Your task to perform on an android device: add a label to a message in the gmail app Image 0: 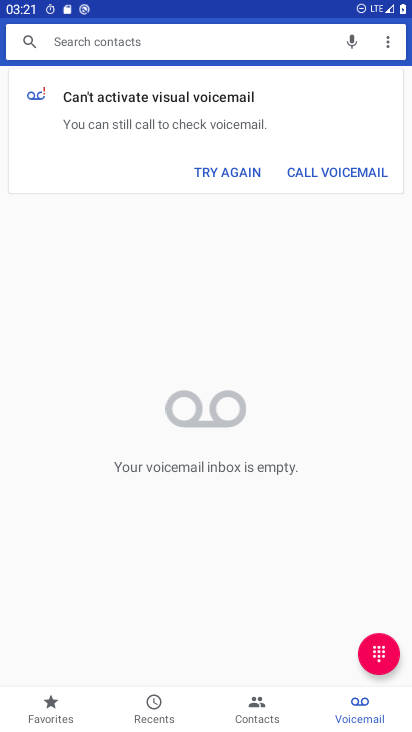
Step 0: press home button
Your task to perform on an android device: add a label to a message in the gmail app Image 1: 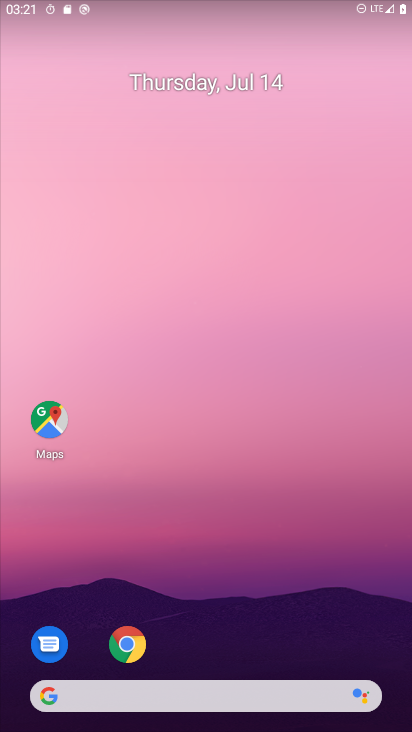
Step 1: drag from (265, 643) to (255, 112)
Your task to perform on an android device: add a label to a message in the gmail app Image 2: 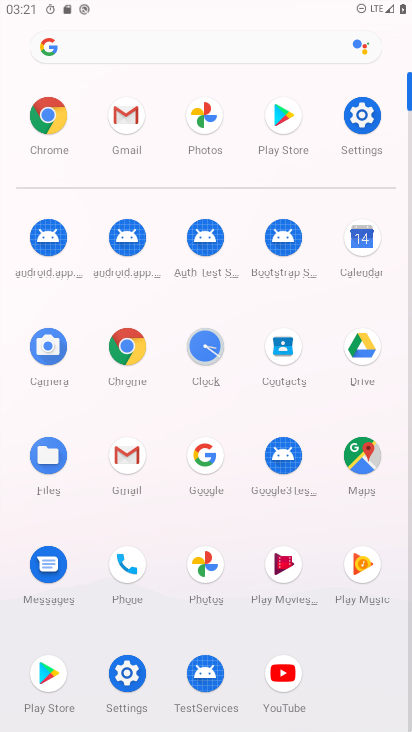
Step 2: click (133, 455)
Your task to perform on an android device: add a label to a message in the gmail app Image 3: 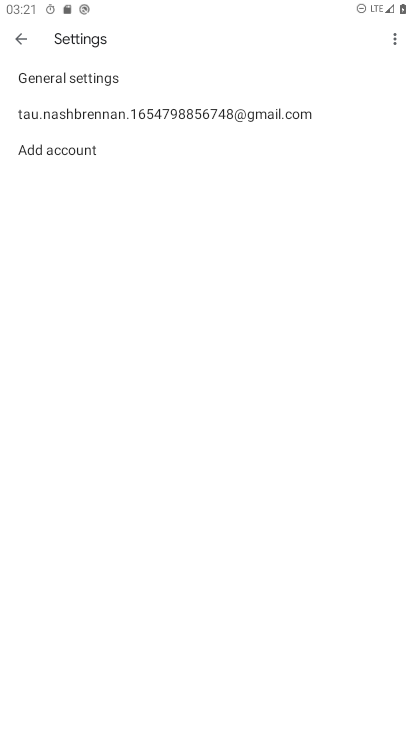
Step 3: click (19, 38)
Your task to perform on an android device: add a label to a message in the gmail app Image 4: 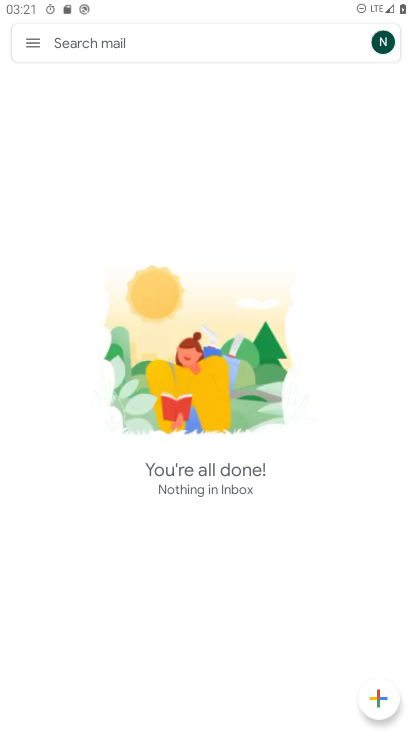
Step 4: click (26, 38)
Your task to perform on an android device: add a label to a message in the gmail app Image 5: 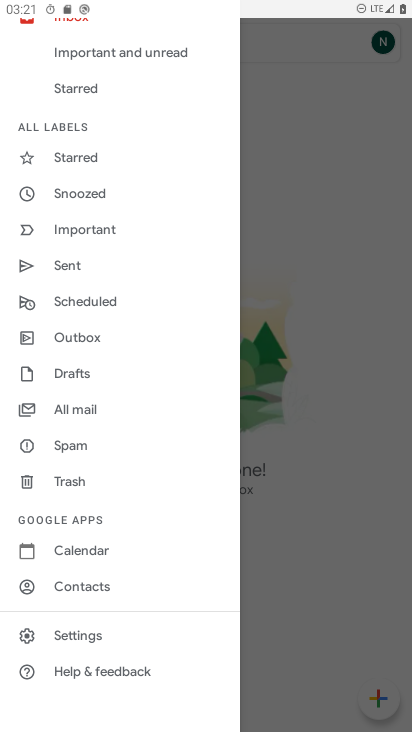
Step 5: click (82, 411)
Your task to perform on an android device: add a label to a message in the gmail app Image 6: 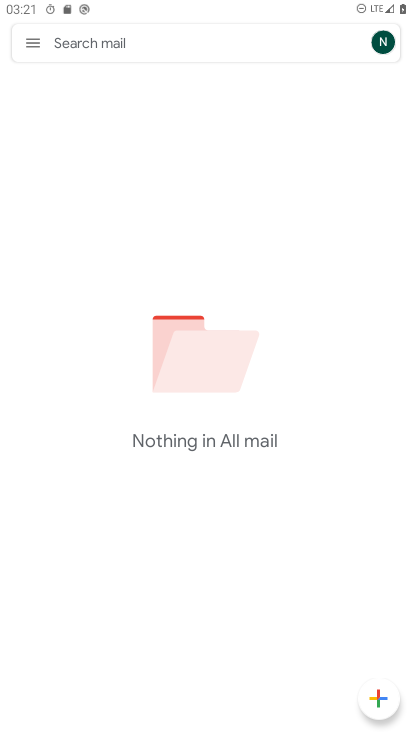
Step 6: task complete